Your task to perform on an android device: toggle sleep mode Image 0: 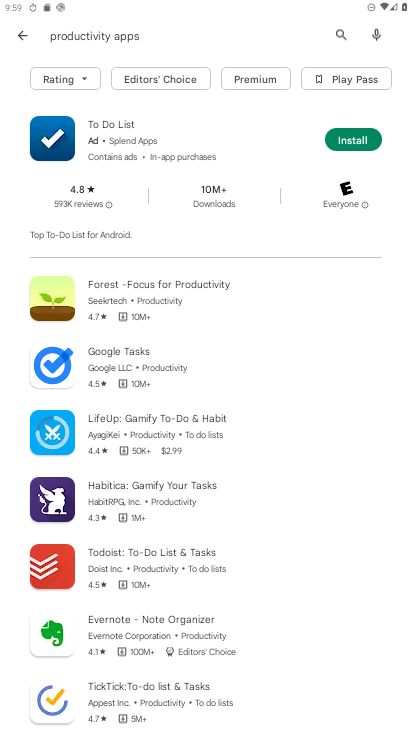
Step 0: press home button
Your task to perform on an android device: toggle sleep mode Image 1: 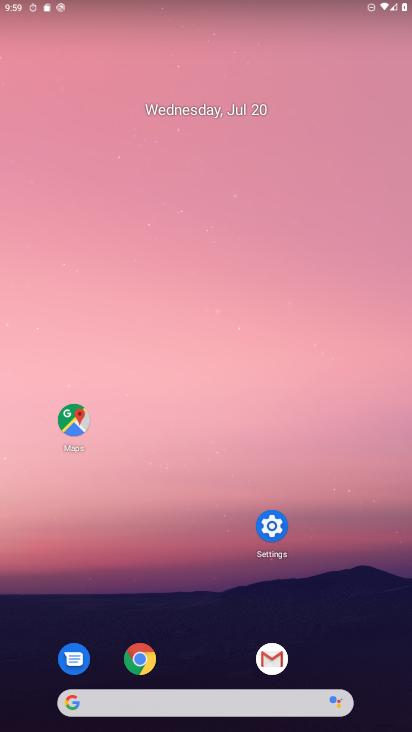
Step 1: click (266, 527)
Your task to perform on an android device: toggle sleep mode Image 2: 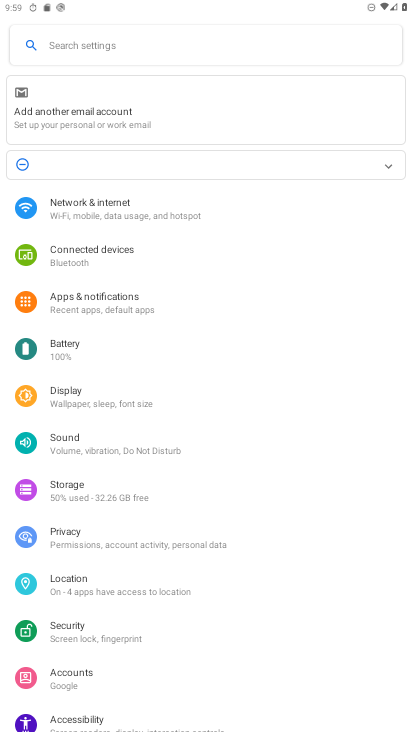
Step 2: click (86, 48)
Your task to perform on an android device: toggle sleep mode Image 3: 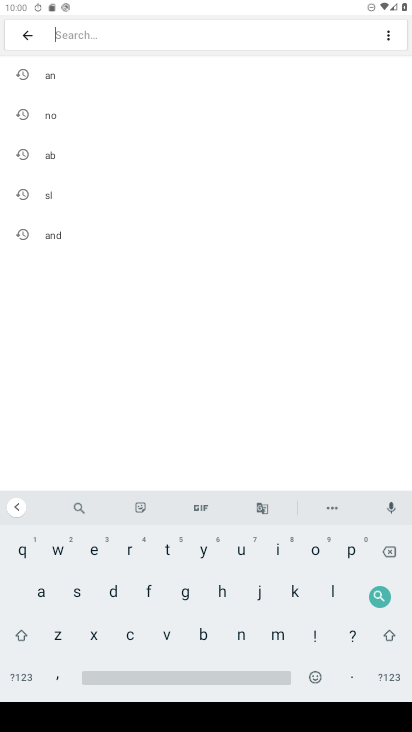
Step 3: click (78, 591)
Your task to perform on an android device: toggle sleep mode Image 4: 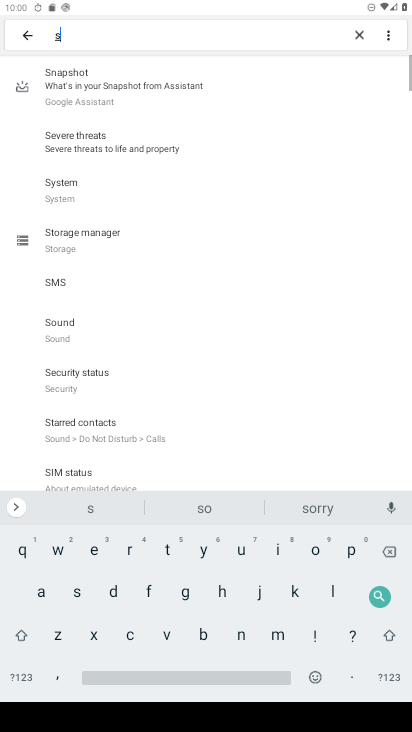
Step 4: click (330, 590)
Your task to perform on an android device: toggle sleep mode Image 5: 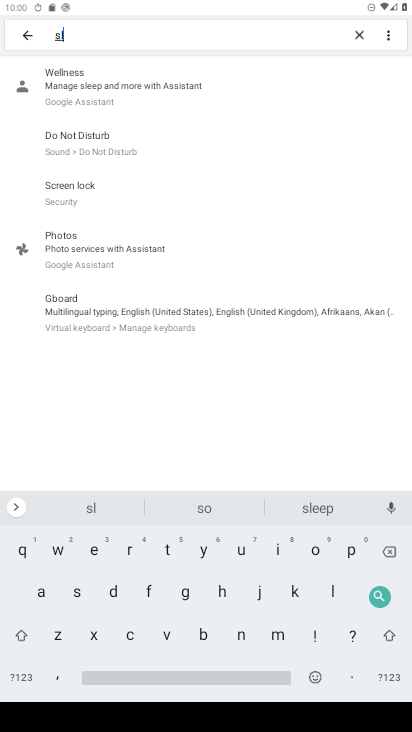
Step 5: click (101, 140)
Your task to perform on an android device: toggle sleep mode Image 6: 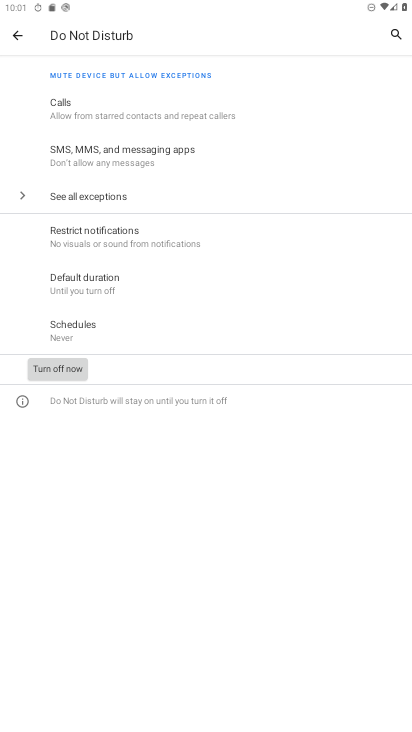
Step 6: task complete